Your task to perform on an android device: Is it going to rain tomorrow? Image 0: 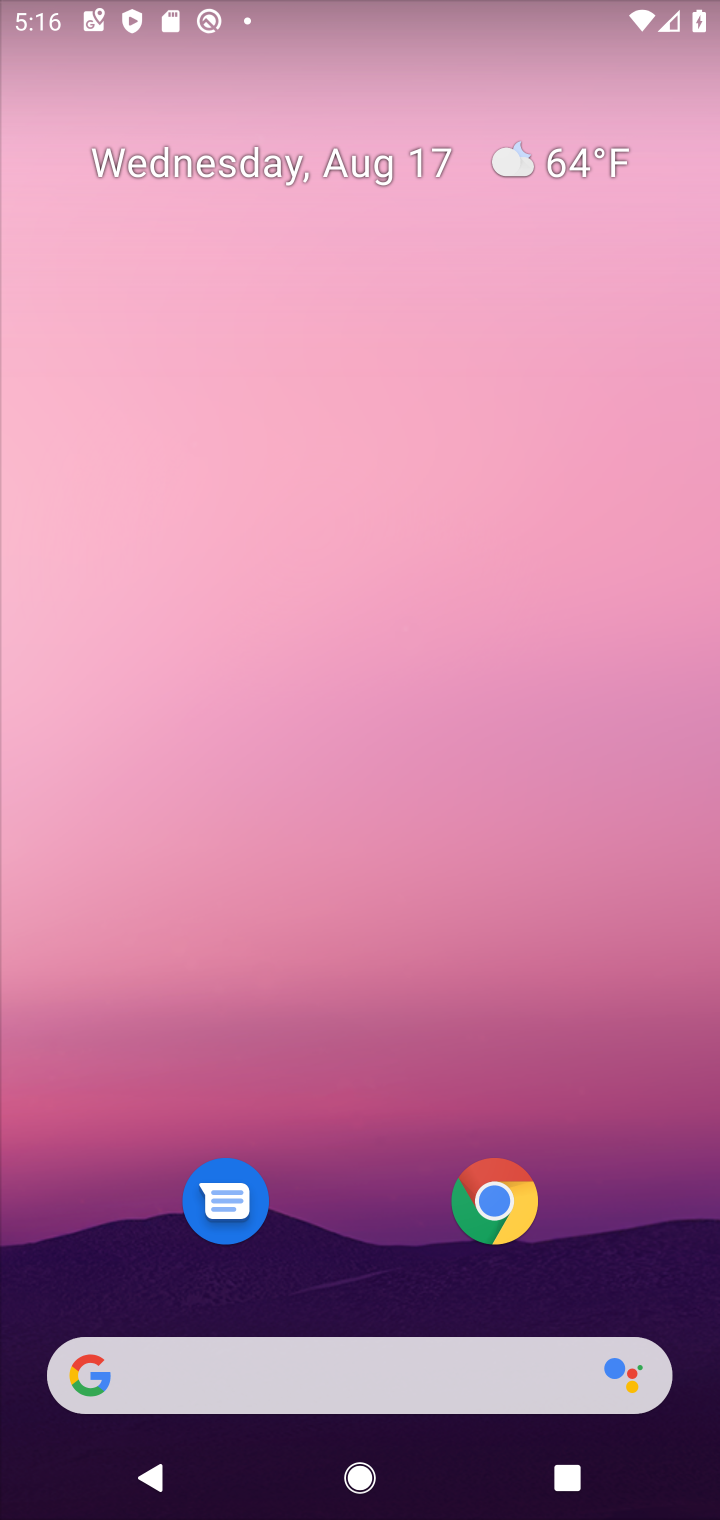
Step 0: press home button
Your task to perform on an android device: Is it going to rain tomorrow? Image 1: 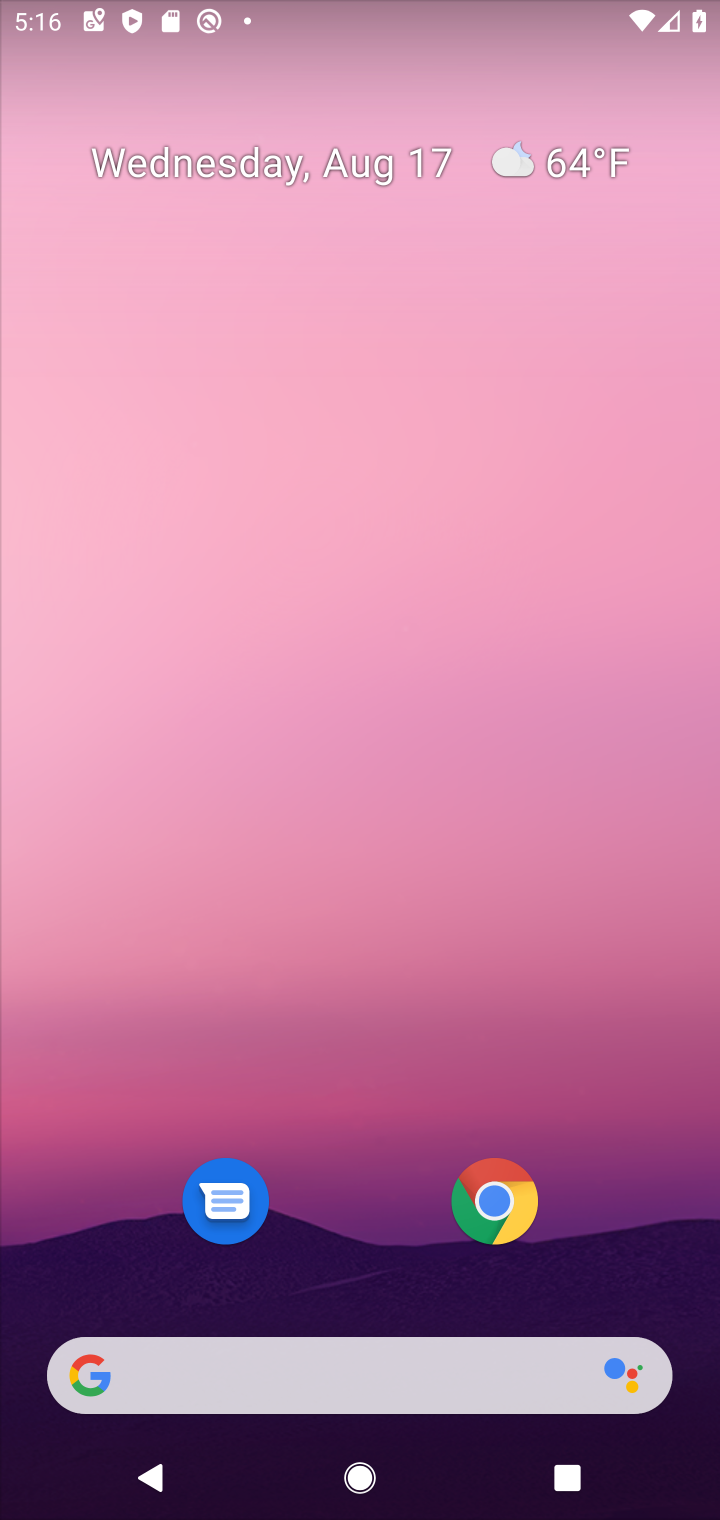
Step 1: drag from (334, 1299) to (479, 107)
Your task to perform on an android device: Is it going to rain tomorrow? Image 2: 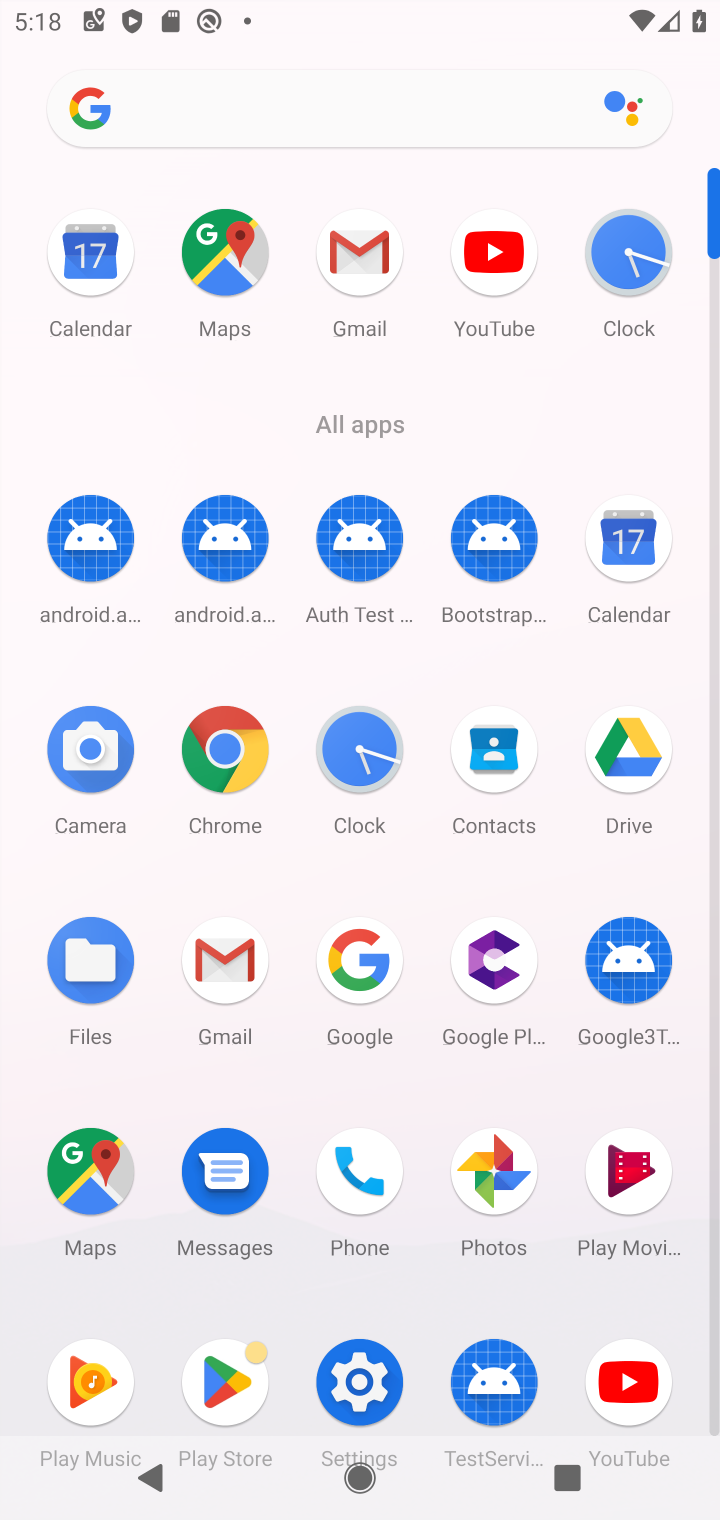
Step 2: click (359, 1011)
Your task to perform on an android device: Is it going to rain tomorrow? Image 3: 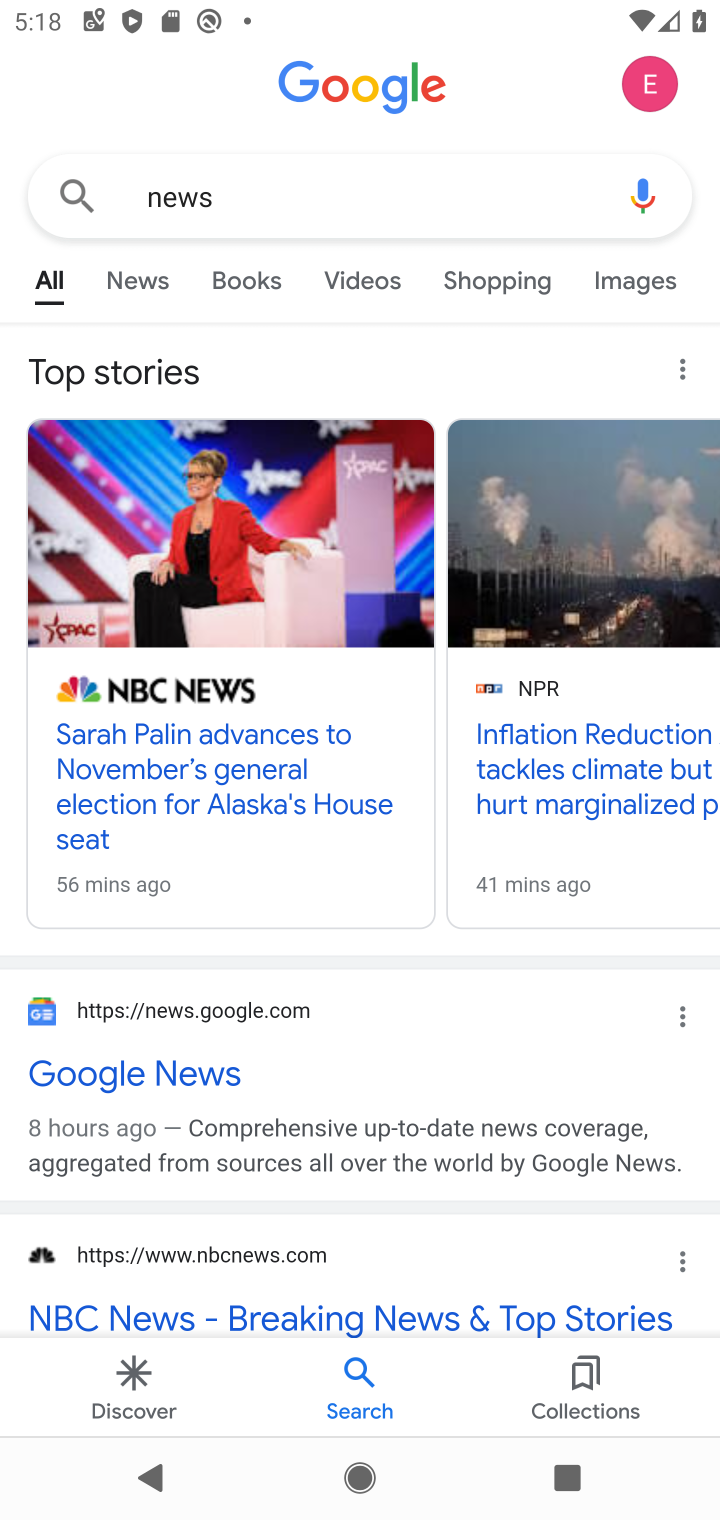
Step 3: click (275, 224)
Your task to perform on an android device: Is it going to rain tomorrow? Image 4: 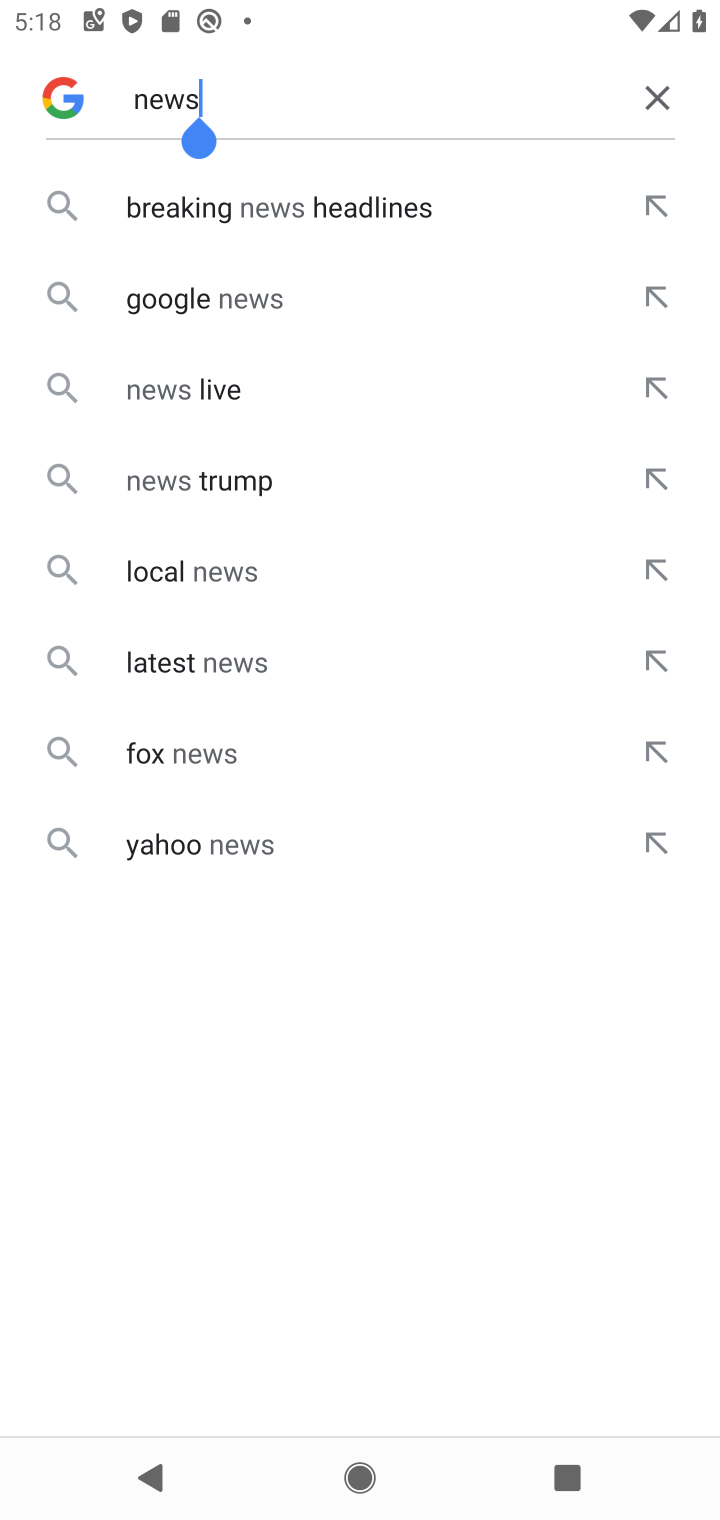
Step 4: click (642, 98)
Your task to perform on an android device: Is it going to rain tomorrow? Image 5: 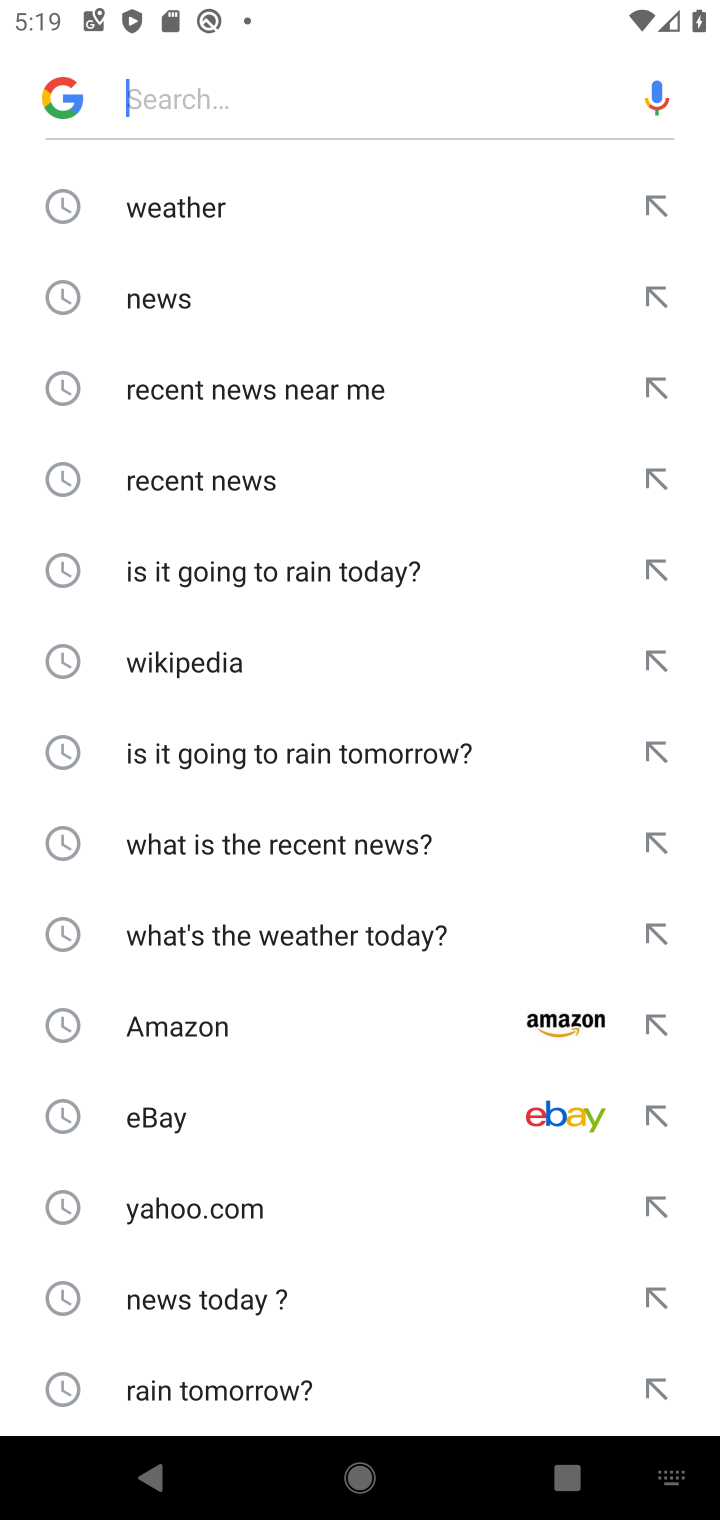
Step 5: type " rain tomorrow?"
Your task to perform on an android device: Is it going to rain tomorrow? Image 6: 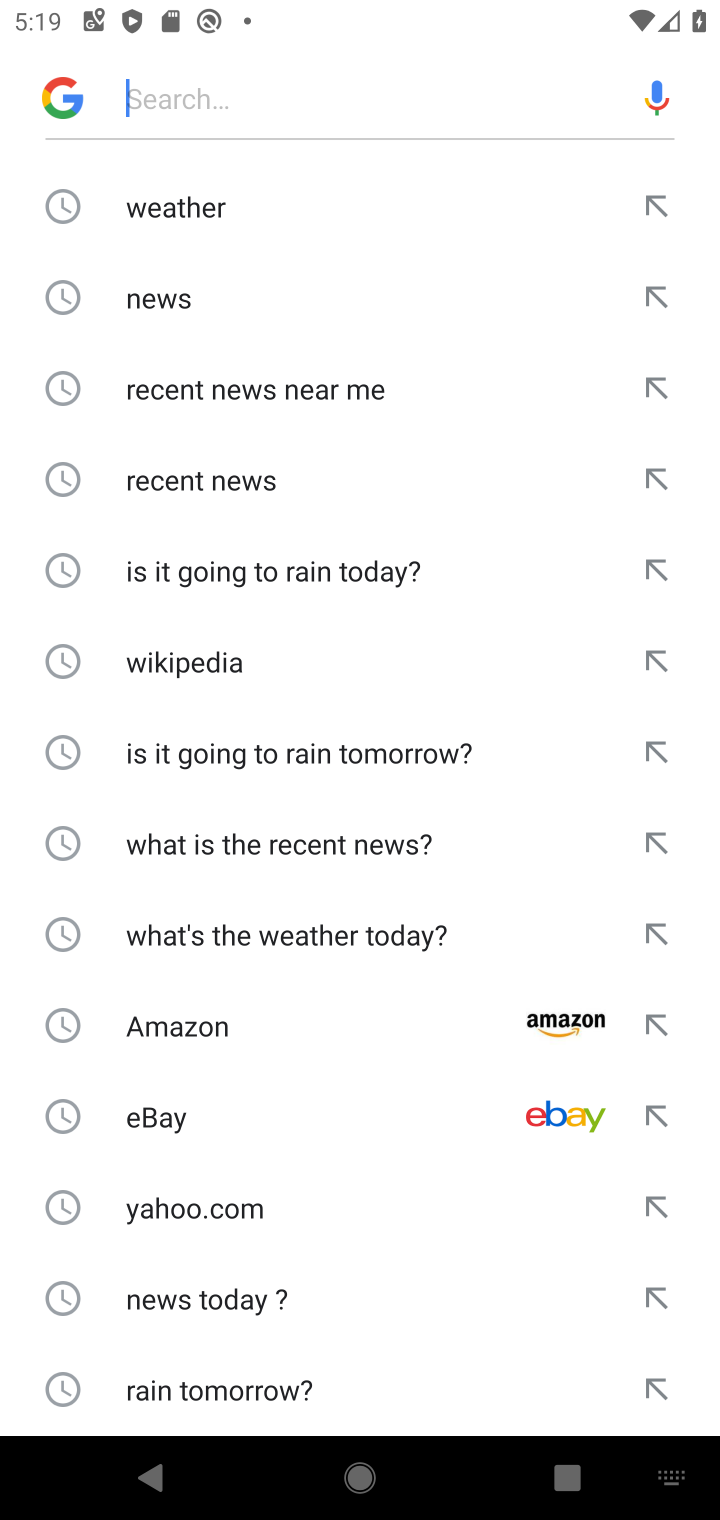
Step 6: click (230, 99)
Your task to perform on an android device: Is it going to rain tomorrow? Image 7: 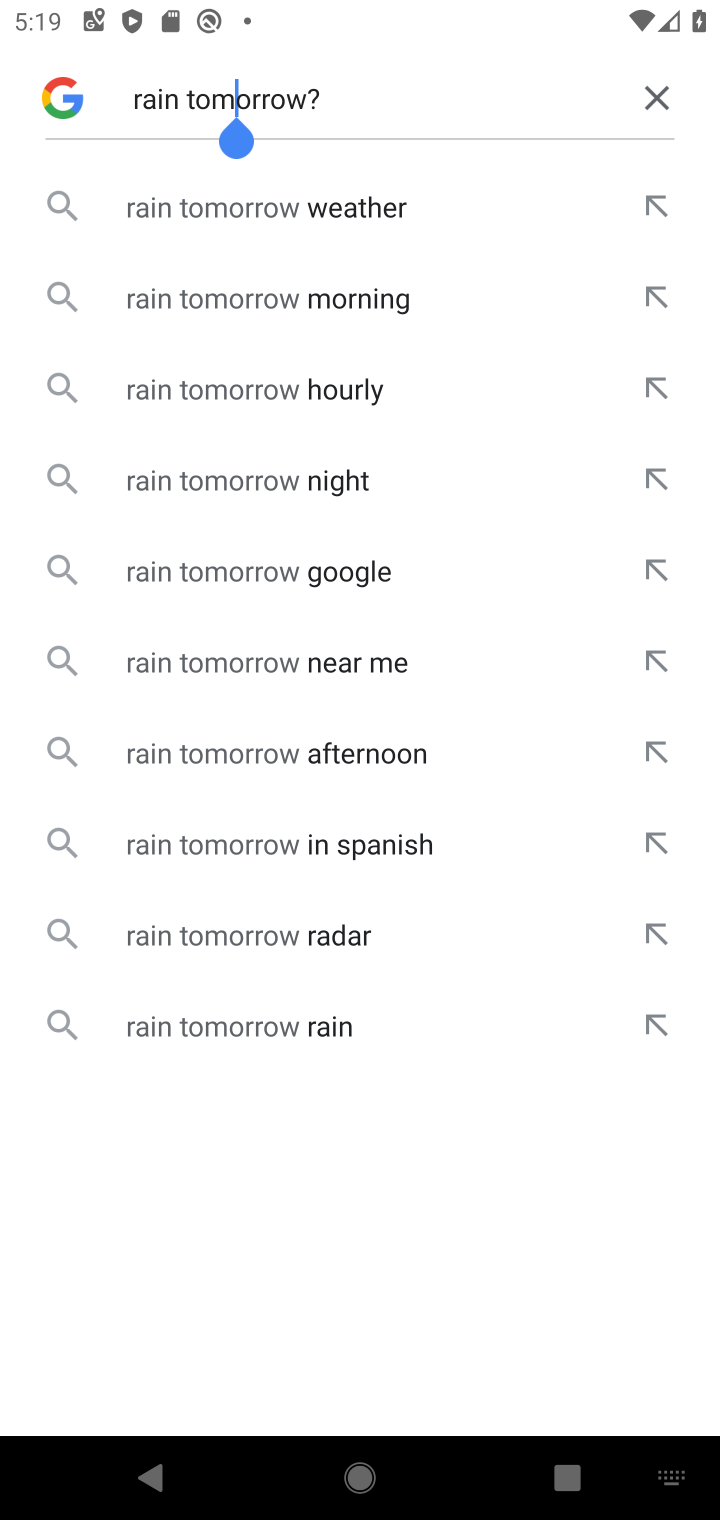
Step 7: type " rain tomorrow?"
Your task to perform on an android device: Is it going to rain tomorrow? Image 8: 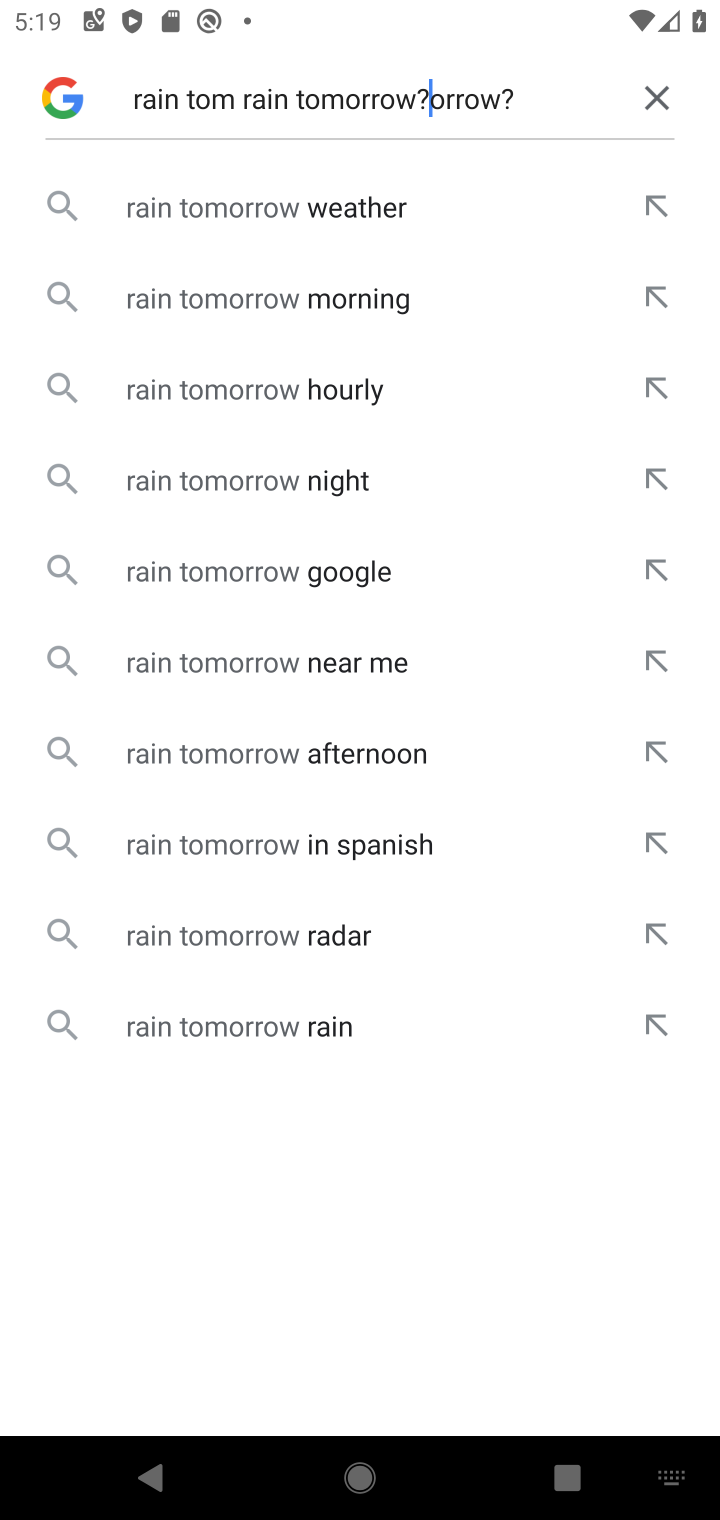
Step 8: press enter
Your task to perform on an android device: Is it going to rain tomorrow? Image 9: 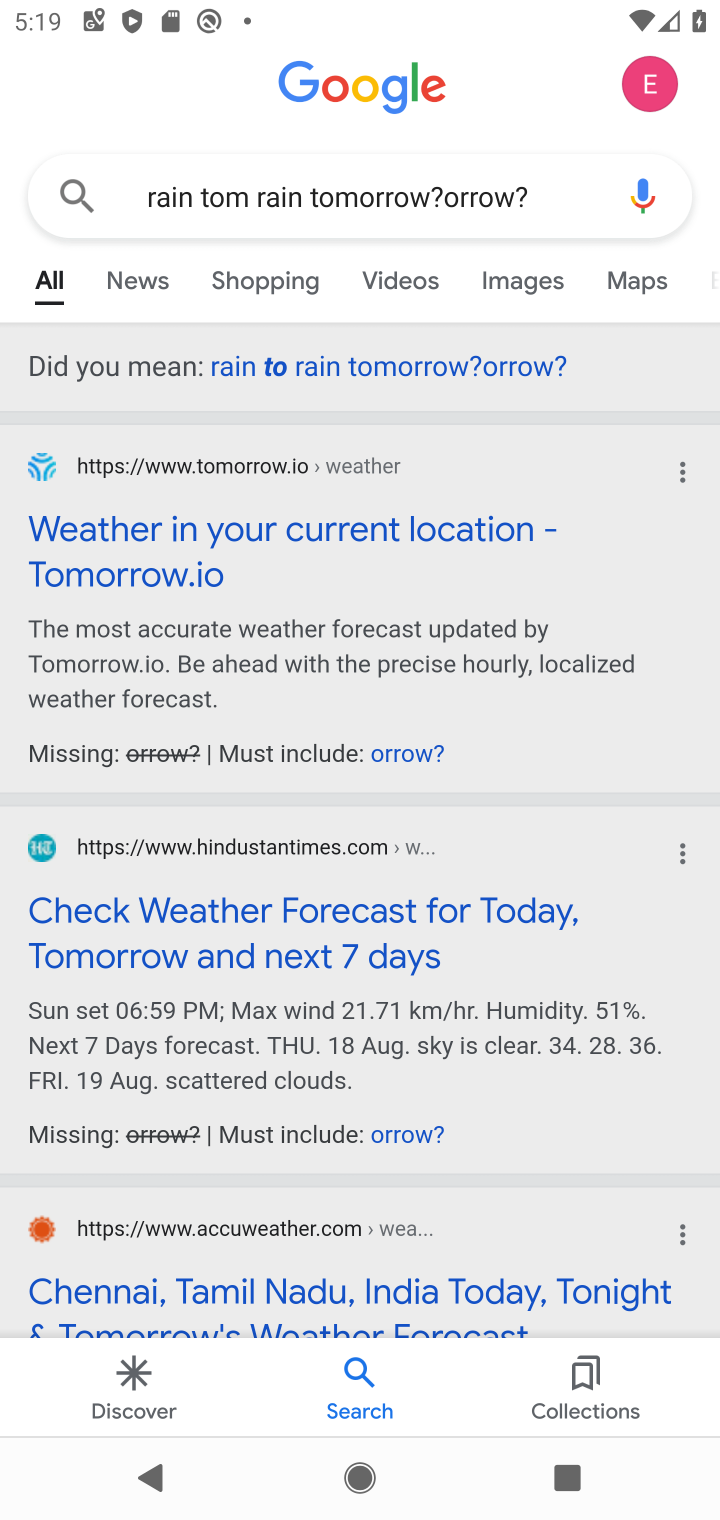
Step 9: press enter
Your task to perform on an android device: Is it going to rain tomorrow? Image 10: 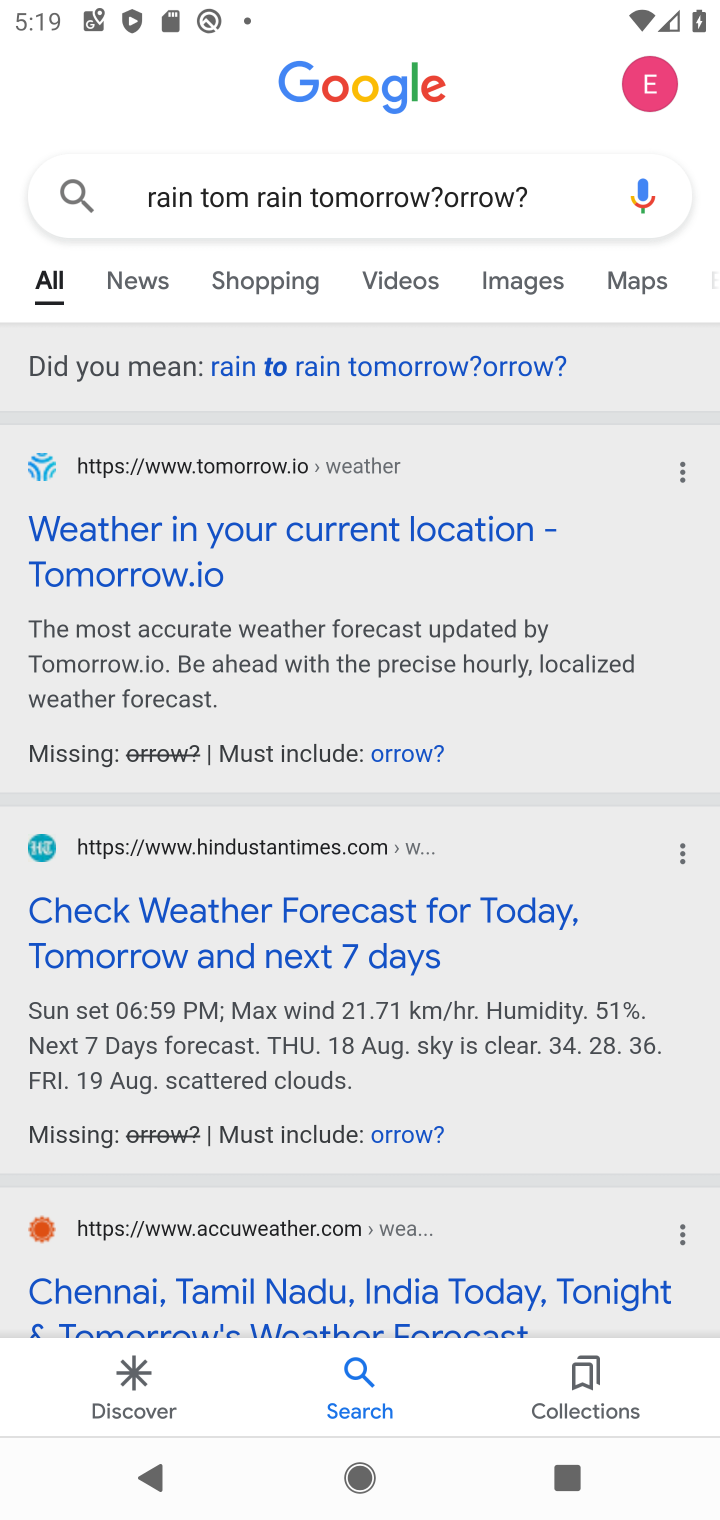
Step 10: click (560, 221)
Your task to perform on an android device: Is it going to rain tomorrow? Image 11: 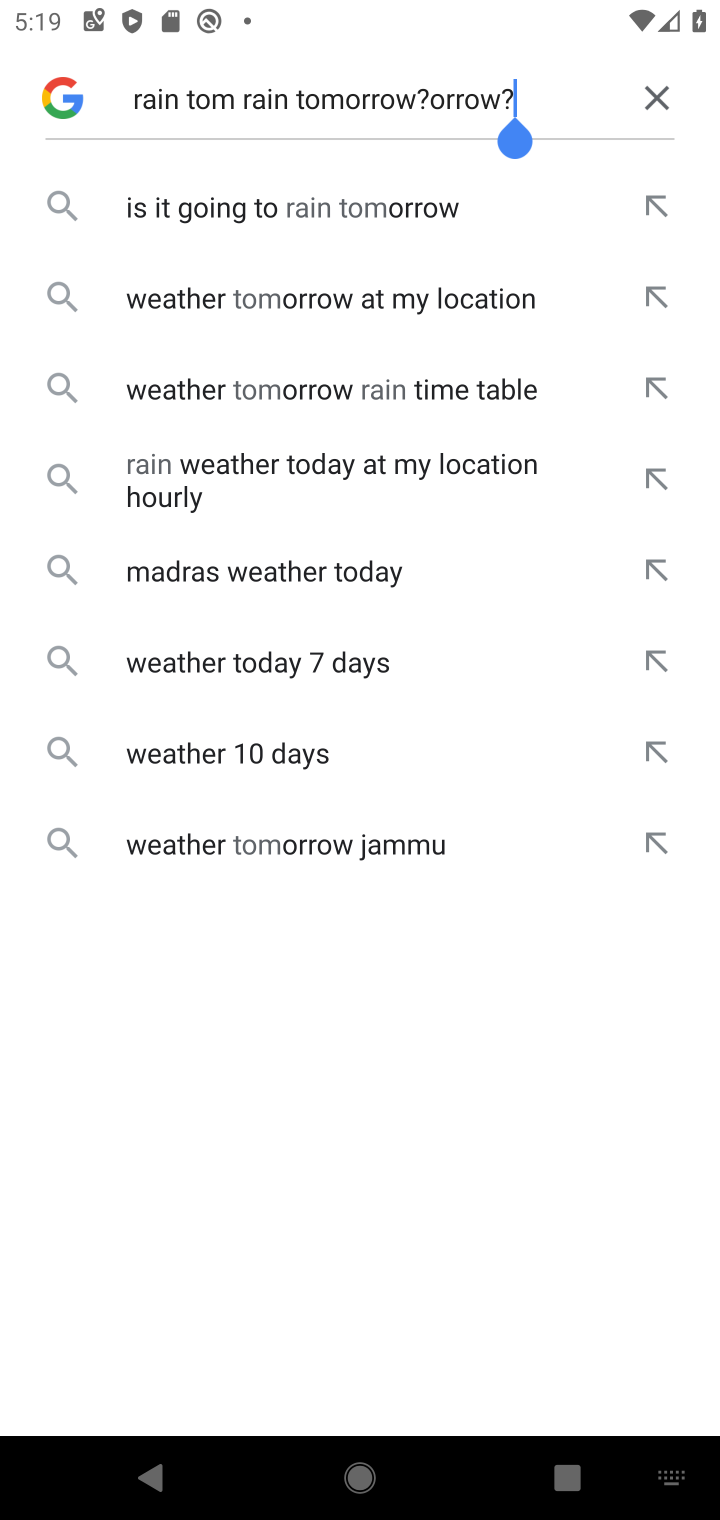
Step 11: click (649, 98)
Your task to perform on an android device: Is it going to rain tomorrow? Image 12: 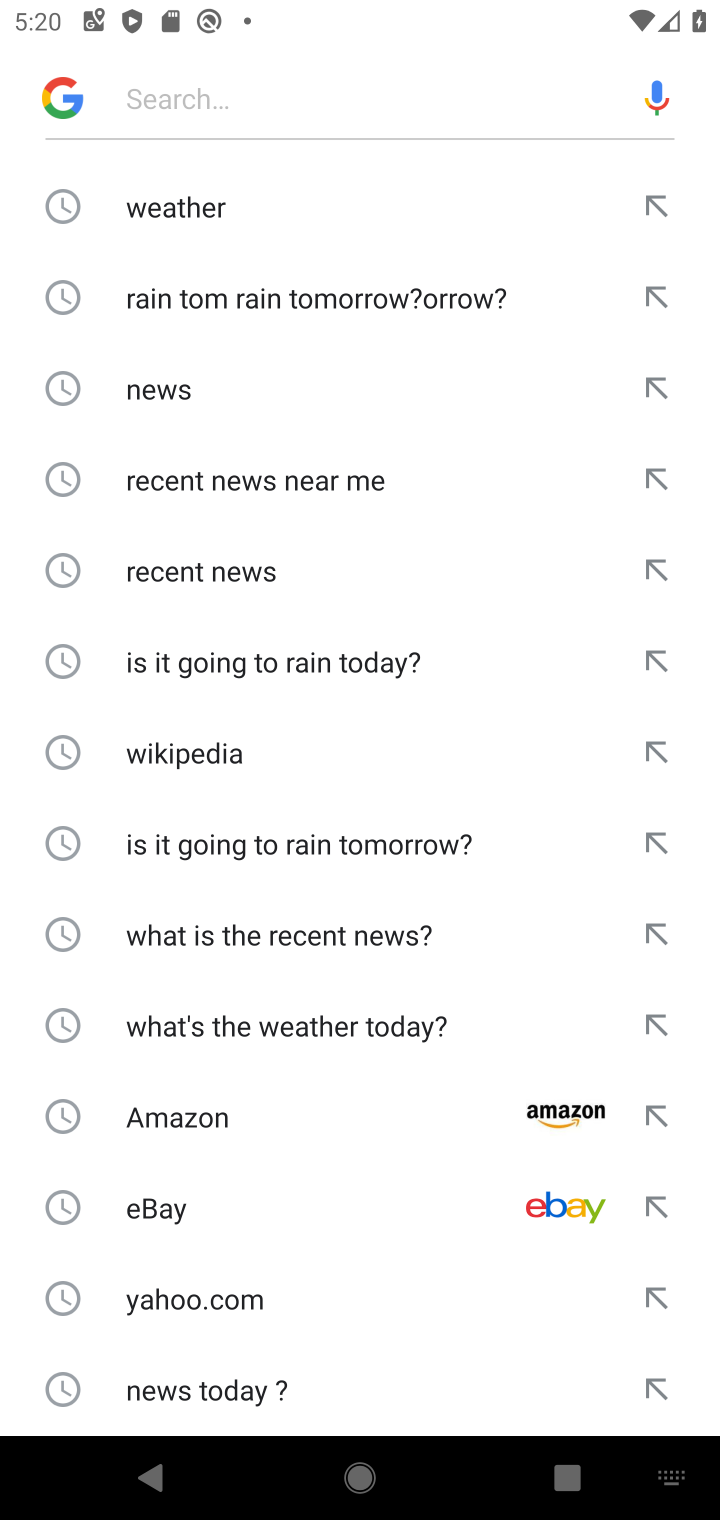
Step 12: press enter
Your task to perform on an android device: Is it going to rain tomorrow? Image 13: 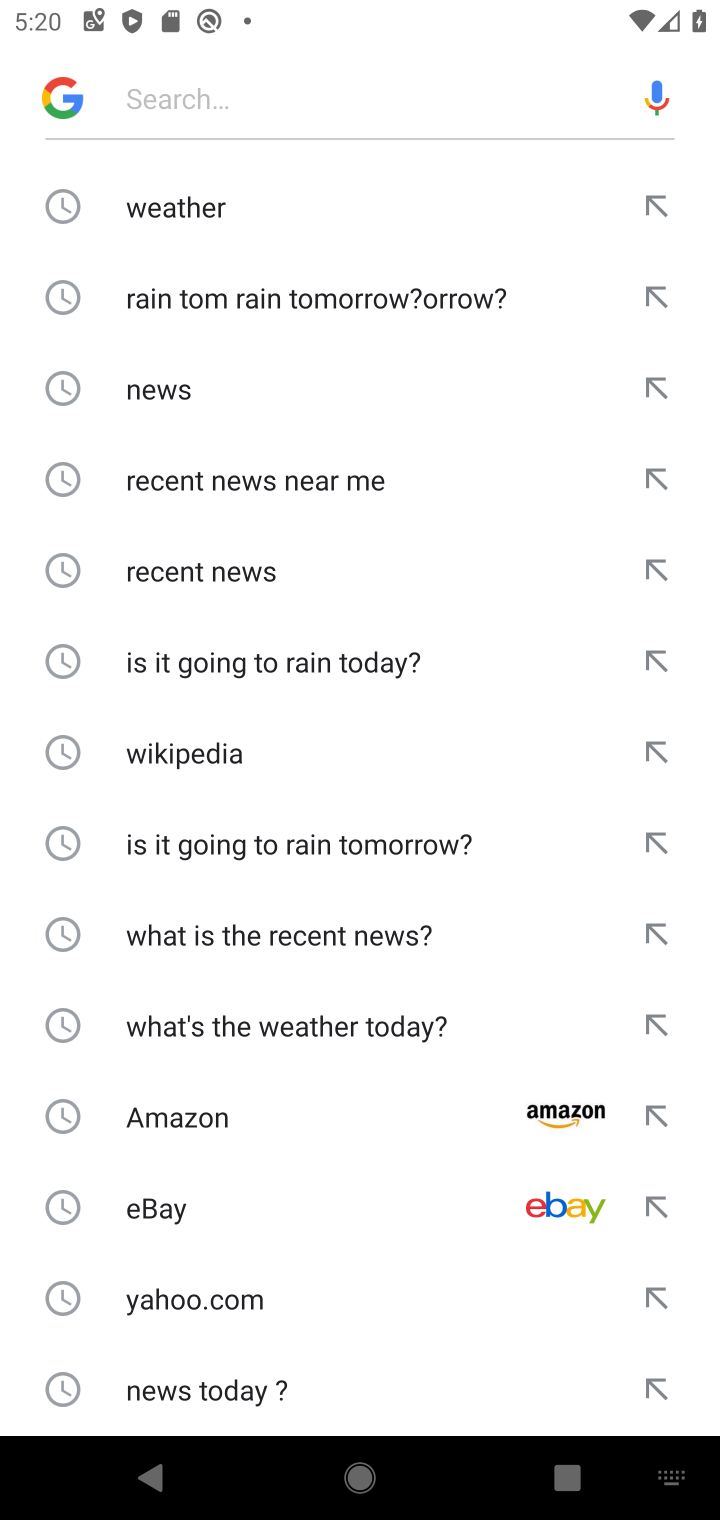
Step 13: type " rain tomorrow?"
Your task to perform on an android device: Is it going to rain tomorrow? Image 14: 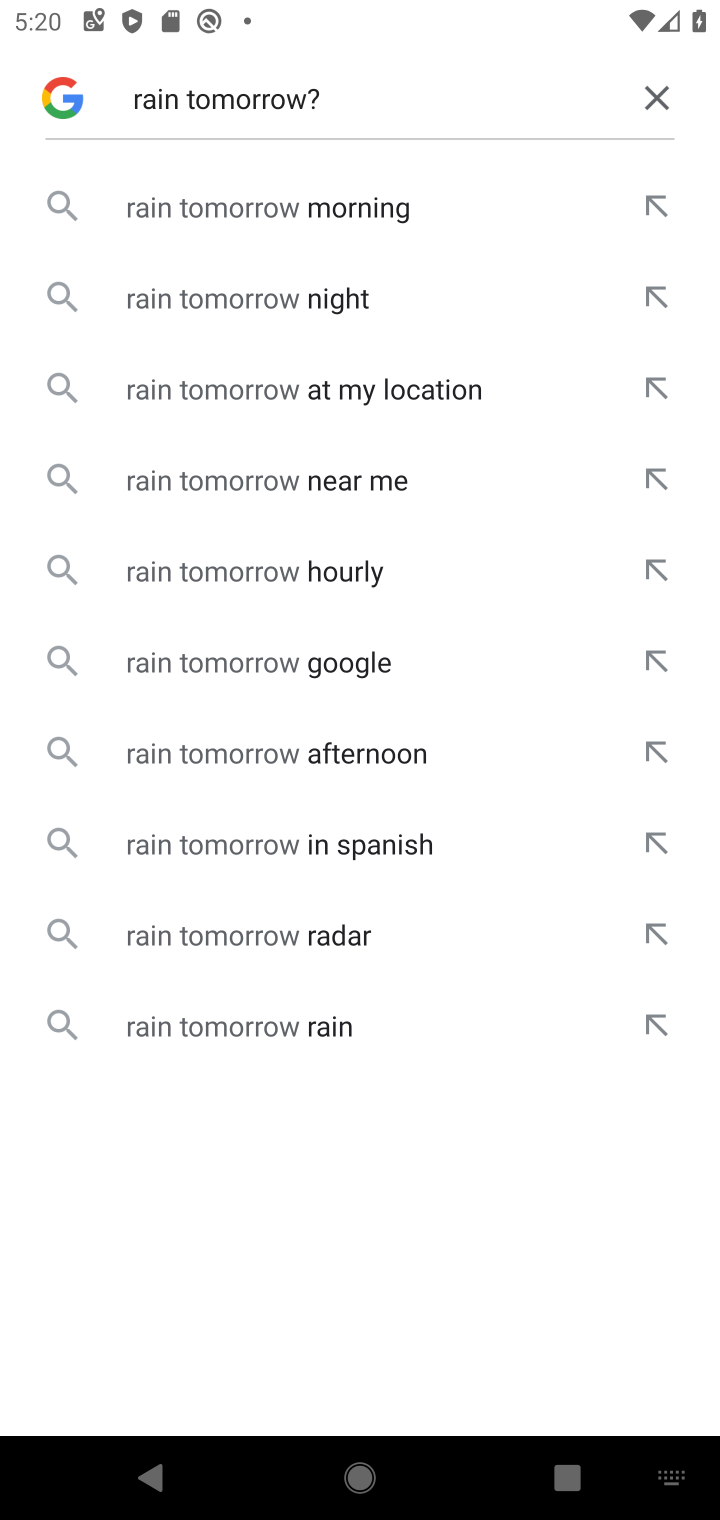
Step 14: press enter
Your task to perform on an android device: Is it going to rain tomorrow? Image 15: 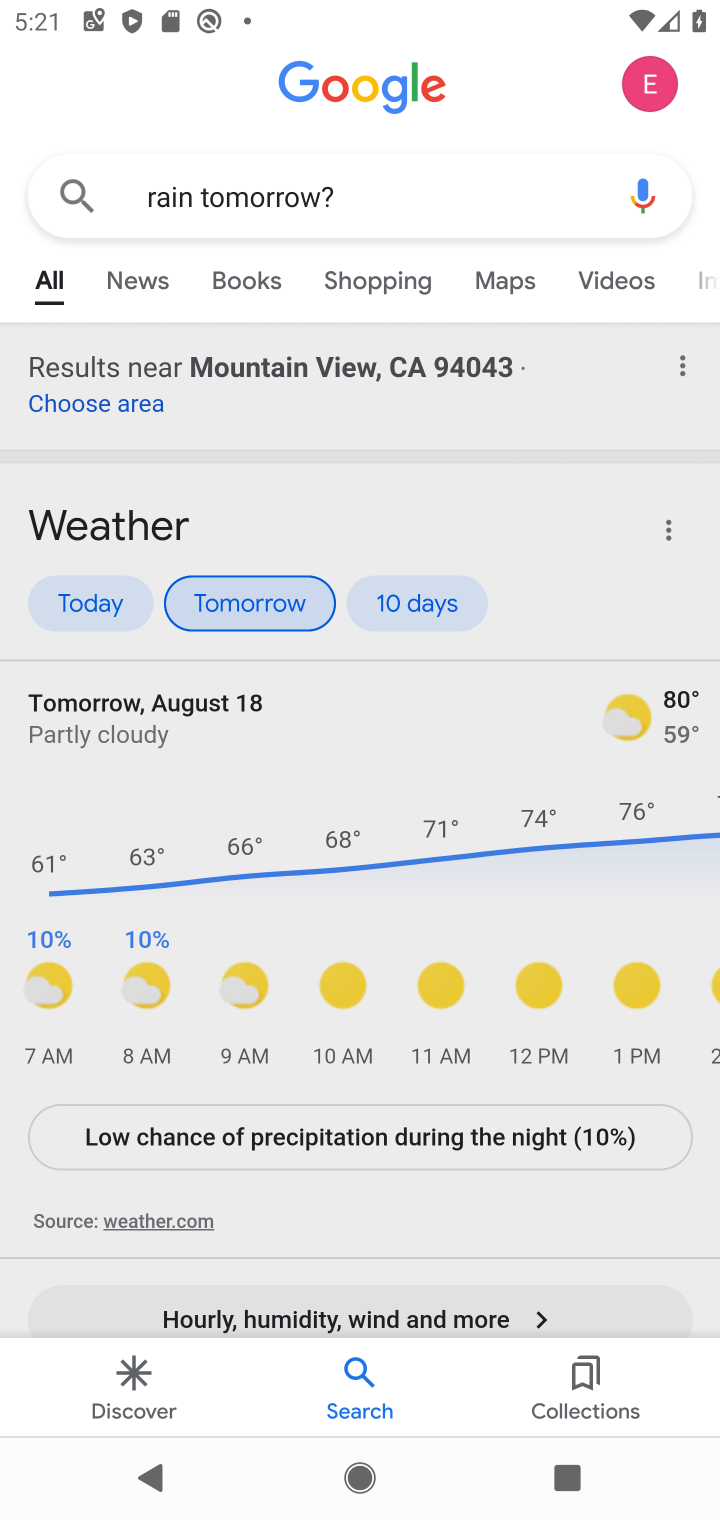
Step 15: task complete